Your task to perform on an android device: Play the last video I watched on Youtube Image 0: 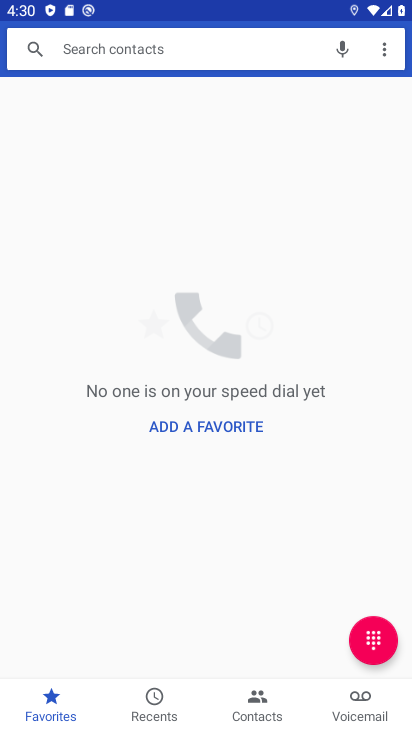
Step 0: press home button
Your task to perform on an android device: Play the last video I watched on Youtube Image 1: 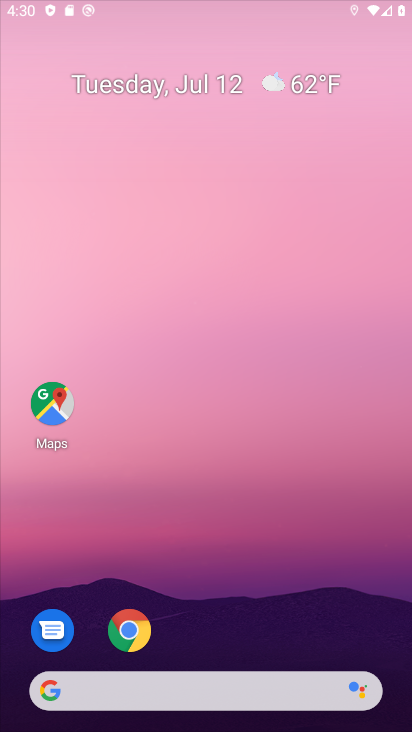
Step 1: drag from (267, 667) to (345, 146)
Your task to perform on an android device: Play the last video I watched on Youtube Image 2: 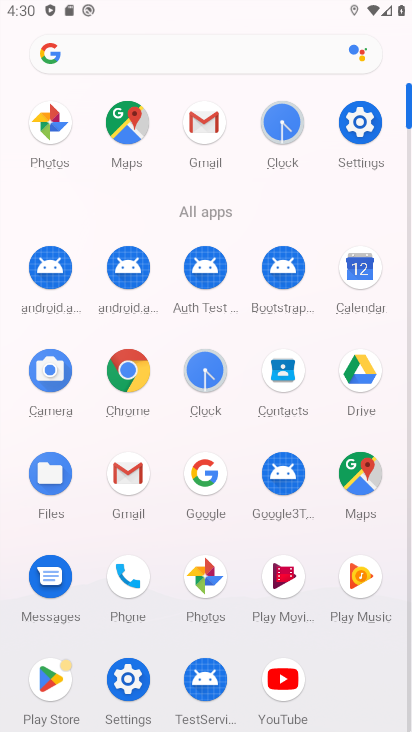
Step 2: click (268, 663)
Your task to perform on an android device: Play the last video I watched on Youtube Image 3: 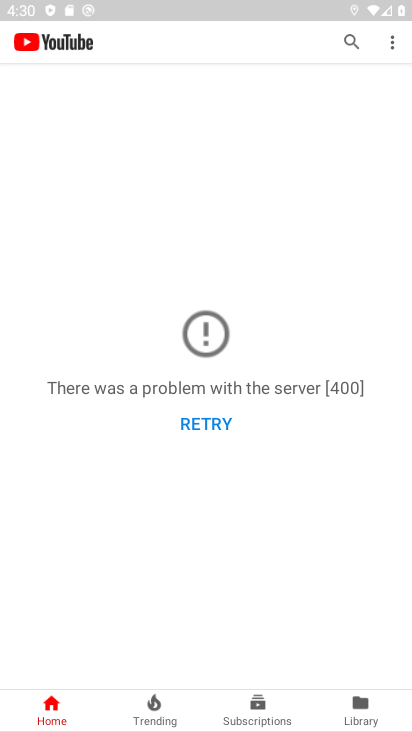
Step 3: task complete